Your task to perform on an android device: open chrome and create a bookmark for the current page Image 0: 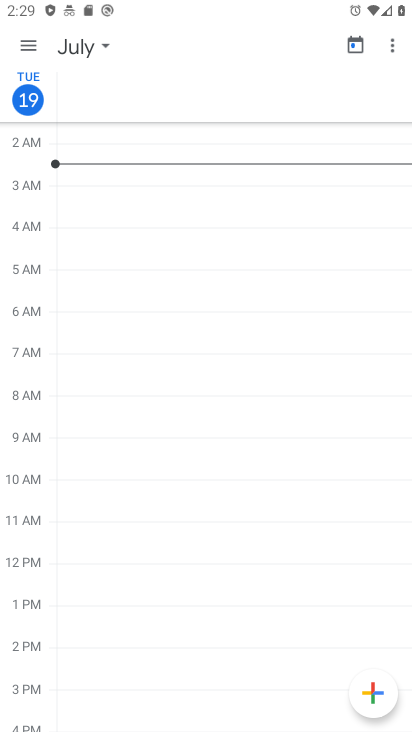
Step 0: press back button
Your task to perform on an android device: open chrome and create a bookmark for the current page Image 1: 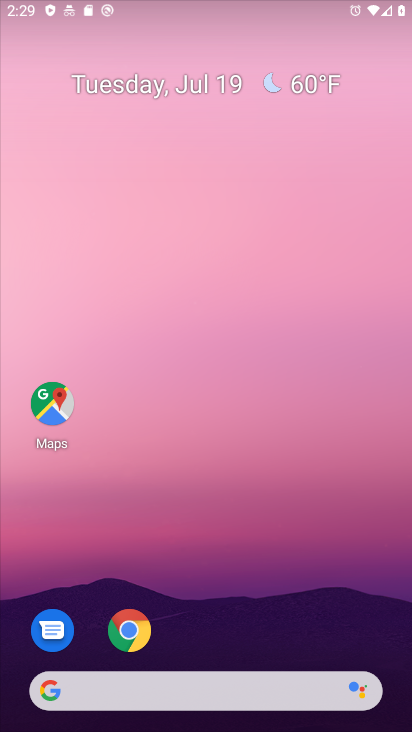
Step 1: press home button
Your task to perform on an android device: open chrome and create a bookmark for the current page Image 2: 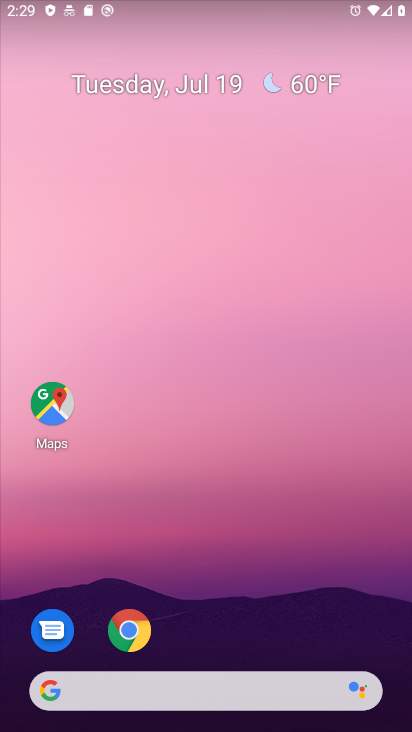
Step 2: drag from (331, 337) to (311, 156)
Your task to perform on an android device: open chrome and create a bookmark for the current page Image 3: 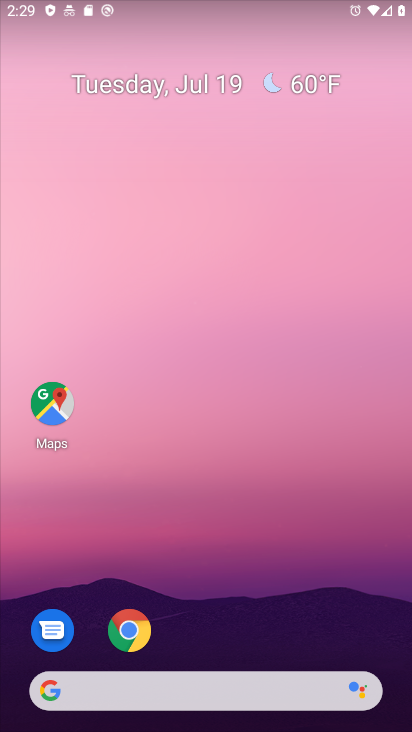
Step 3: drag from (224, 671) to (179, 182)
Your task to perform on an android device: open chrome and create a bookmark for the current page Image 4: 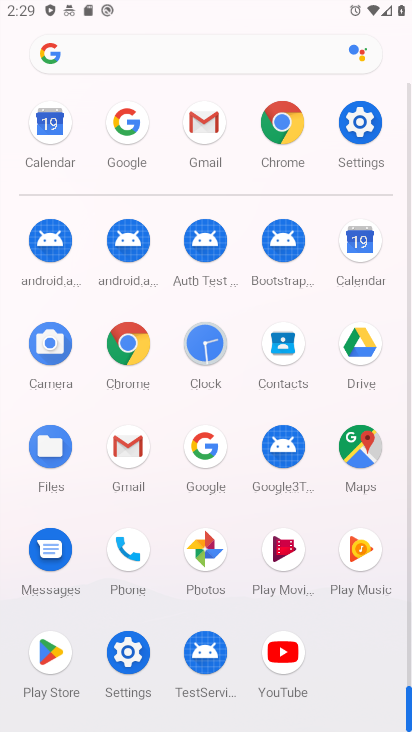
Step 4: drag from (258, 603) to (249, 173)
Your task to perform on an android device: open chrome and create a bookmark for the current page Image 5: 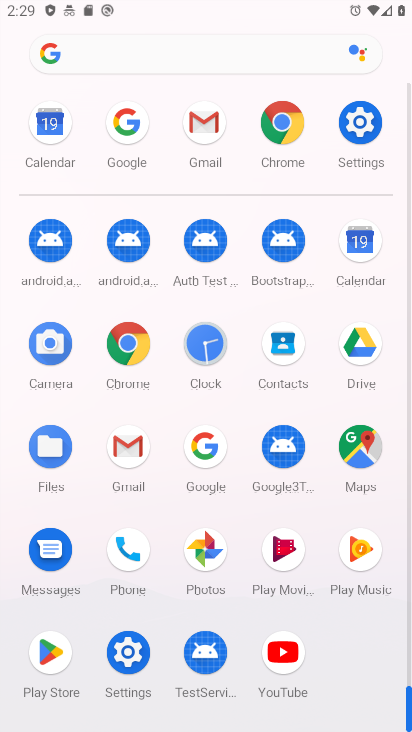
Step 5: click (125, 328)
Your task to perform on an android device: open chrome and create a bookmark for the current page Image 6: 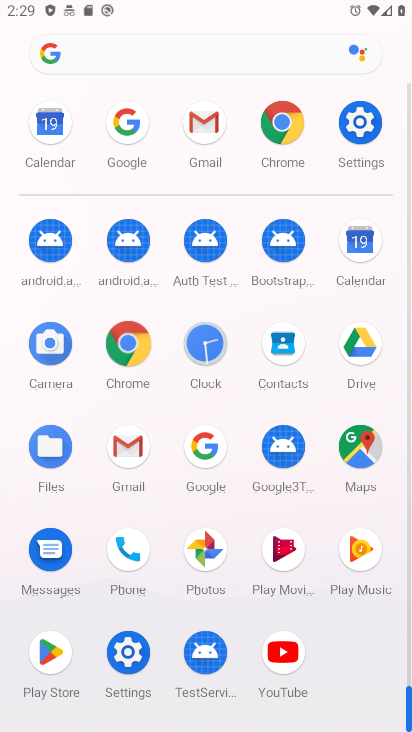
Step 6: click (133, 333)
Your task to perform on an android device: open chrome and create a bookmark for the current page Image 7: 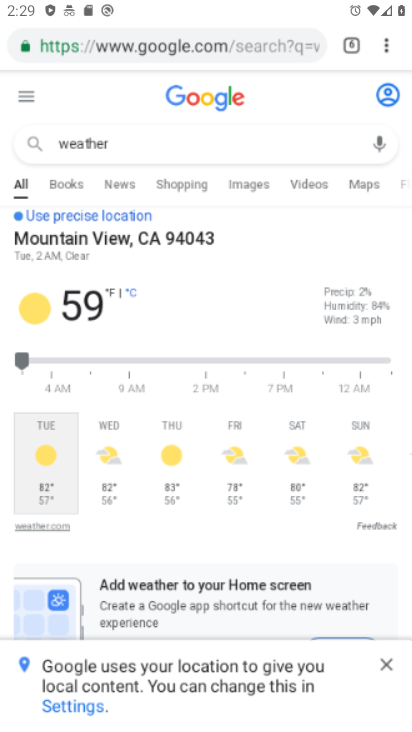
Step 7: drag from (386, 41) to (251, 39)
Your task to perform on an android device: open chrome and create a bookmark for the current page Image 8: 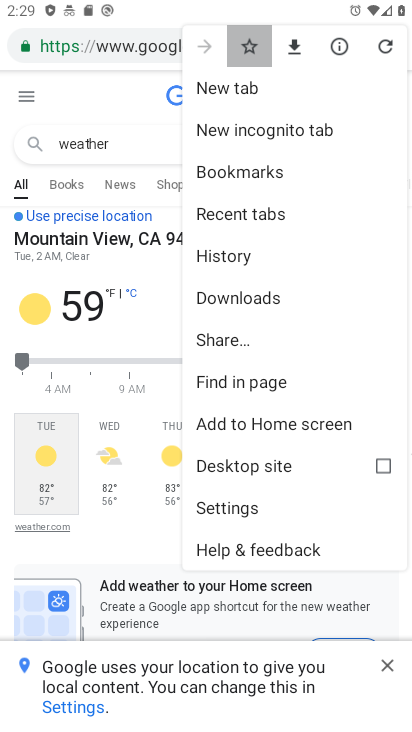
Step 8: click (251, 39)
Your task to perform on an android device: open chrome and create a bookmark for the current page Image 9: 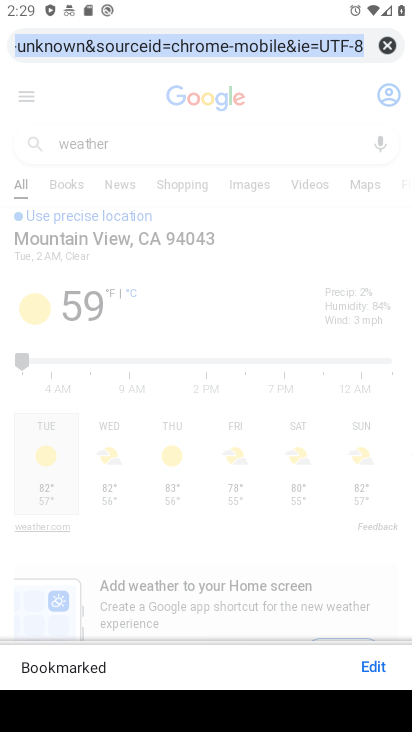
Step 9: task complete